Your task to perform on an android device: turn on the 12-hour format for clock Image 0: 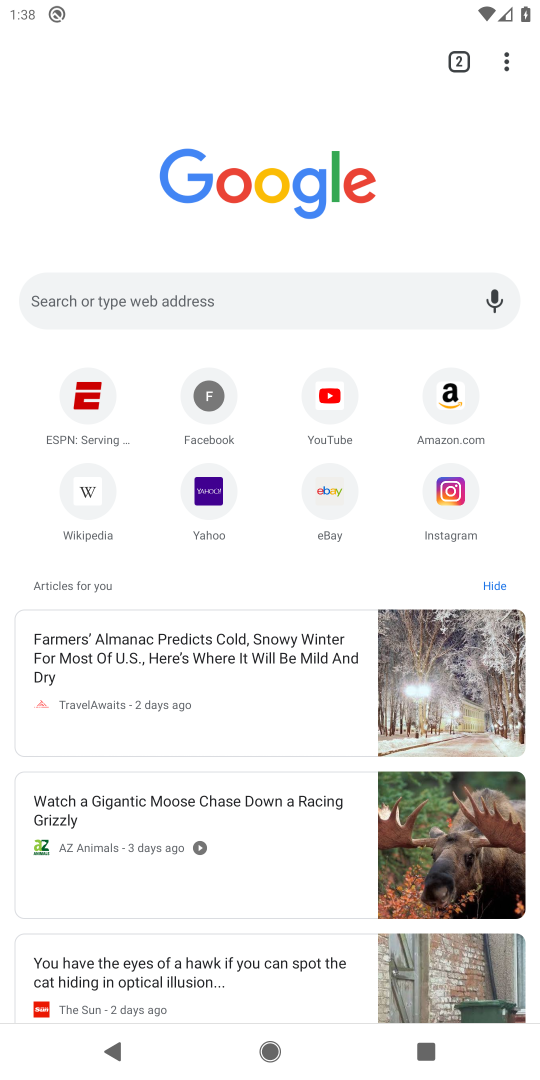
Step 0: press home button
Your task to perform on an android device: turn on the 12-hour format for clock Image 1: 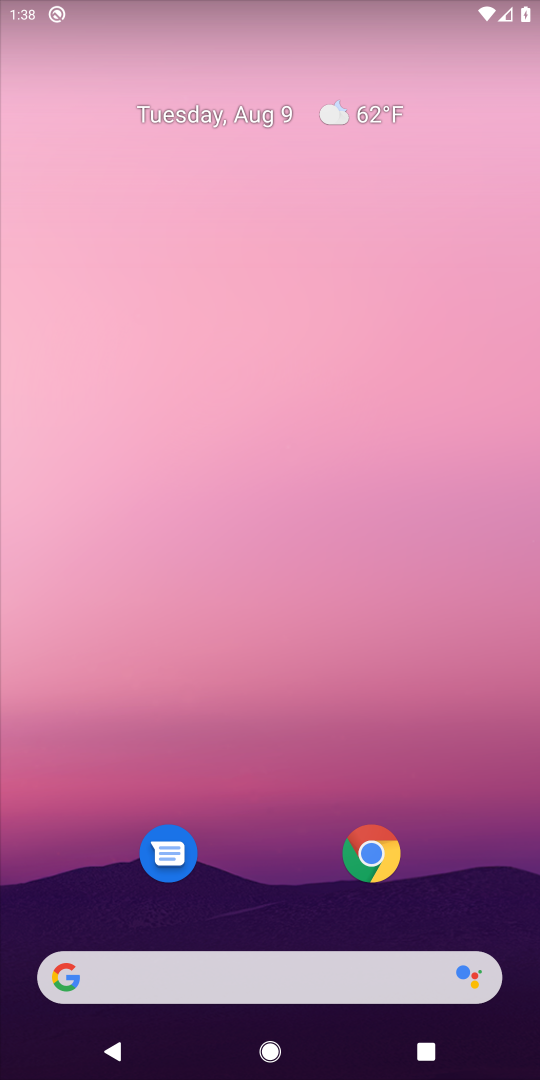
Step 1: drag from (263, 750) to (268, 55)
Your task to perform on an android device: turn on the 12-hour format for clock Image 2: 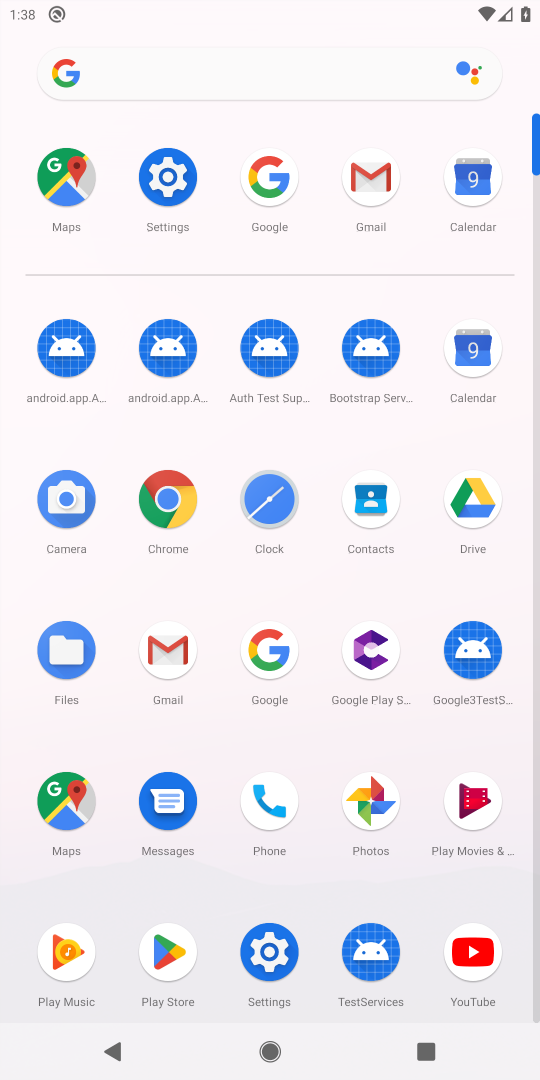
Step 2: click (278, 499)
Your task to perform on an android device: turn on the 12-hour format for clock Image 3: 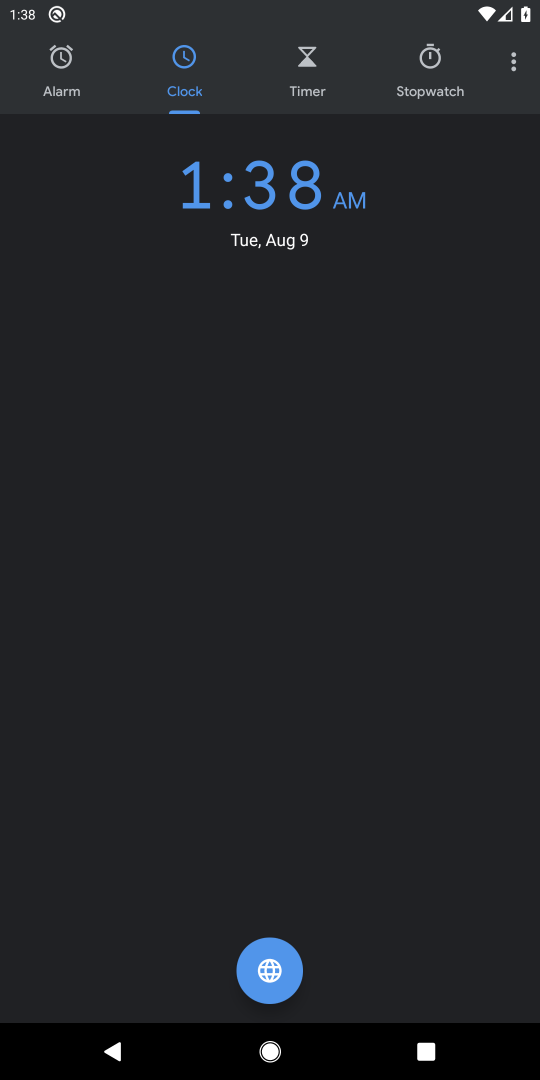
Step 3: click (507, 57)
Your task to perform on an android device: turn on the 12-hour format for clock Image 4: 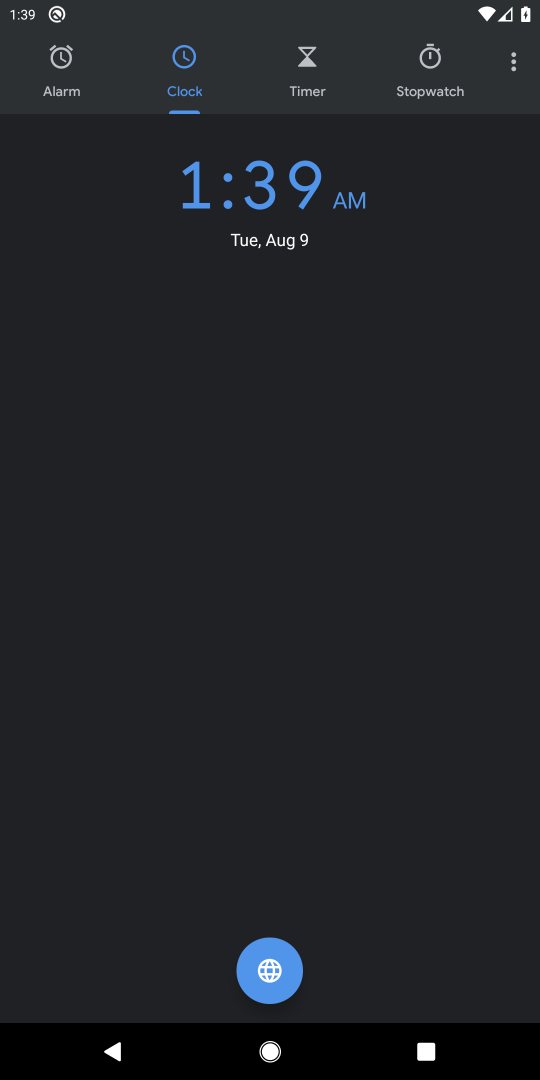
Step 4: click (510, 54)
Your task to perform on an android device: turn on the 12-hour format for clock Image 5: 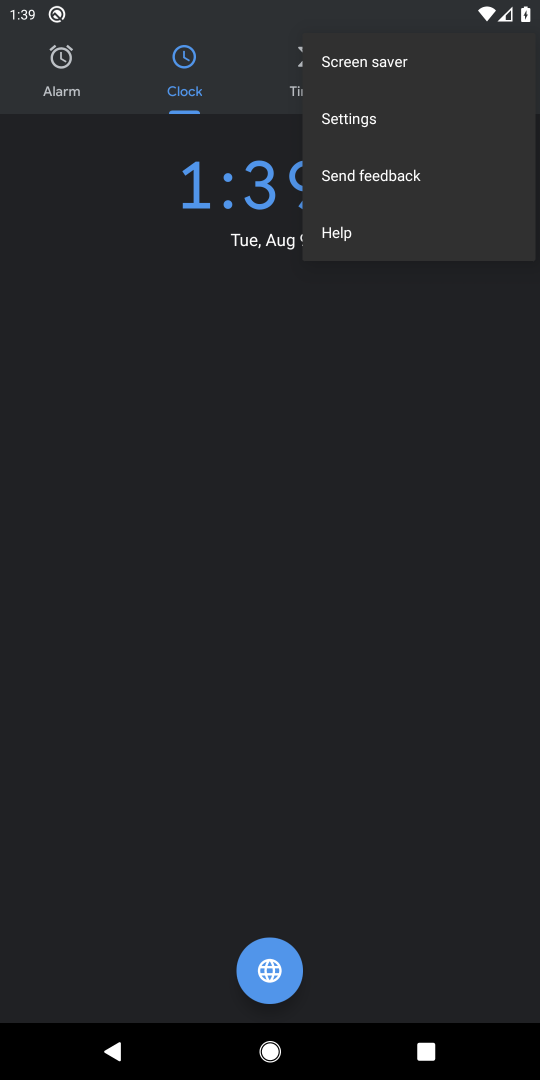
Step 5: click (352, 133)
Your task to perform on an android device: turn on the 12-hour format for clock Image 6: 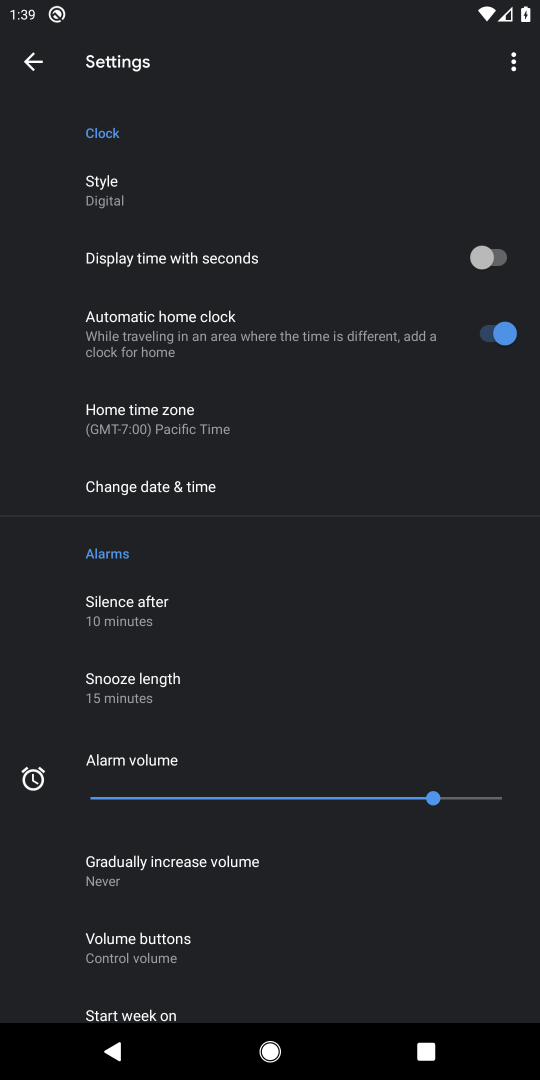
Step 6: click (170, 488)
Your task to perform on an android device: turn on the 12-hour format for clock Image 7: 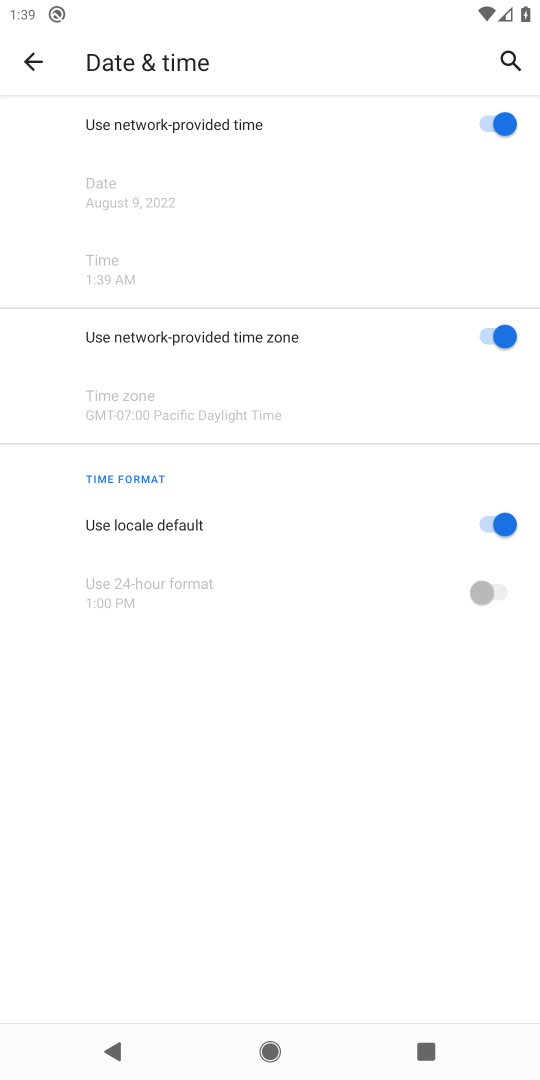
Step 7: task complete